Your task to perform on an android device: Do I have any events this weekend? Image 0: 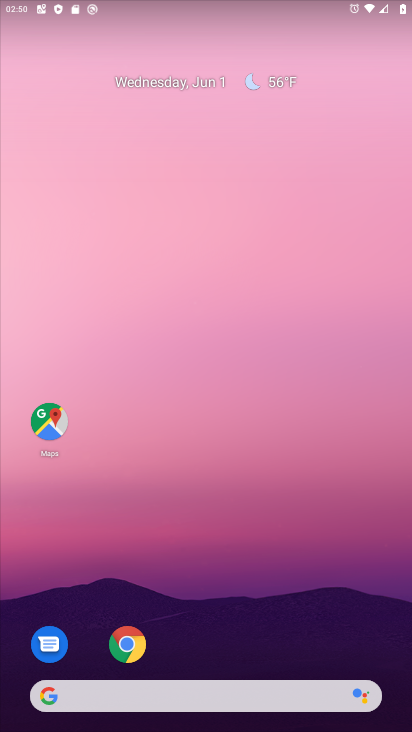
Step 0: drag from (177, 679) to (220, 234)
Your task to perform on an android device: Do I have any events this weekend? Image 1: 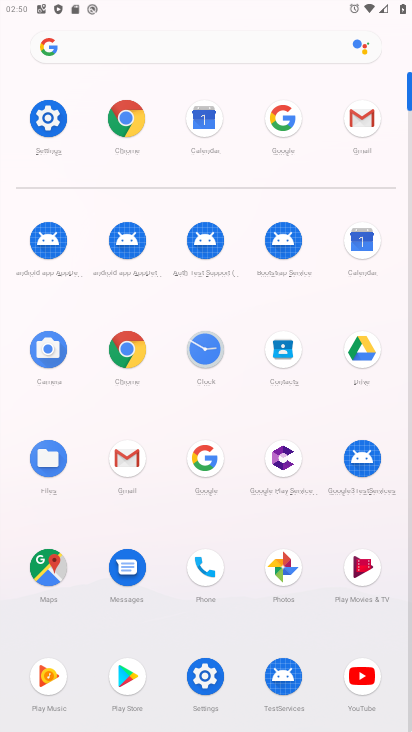
Step 1: click (366, 243)
Your task to perform on an android device: Do I have any events this weekend? Image 2: 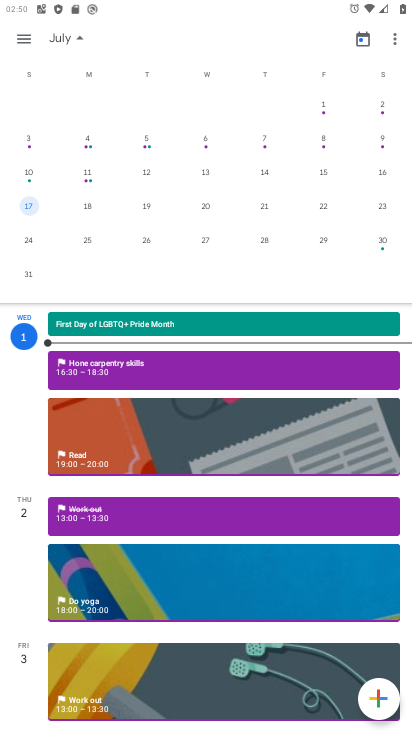
Step 2: drag from (44, 132) to (376, 237)
Your task to perform on an android device: Do I have any events this weekend? Image 3: 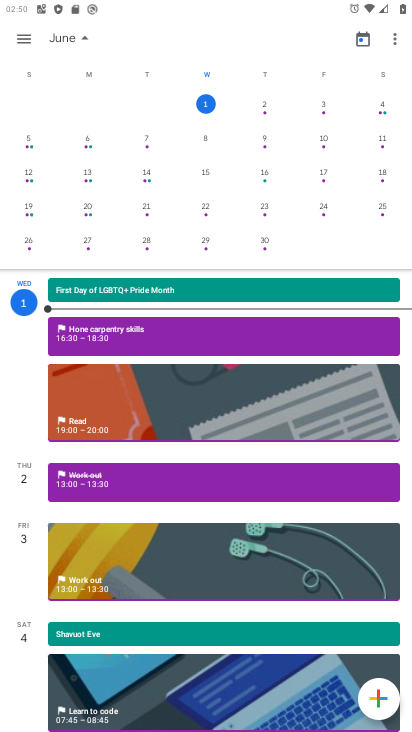
Step 3: click (32, 142)
Your task to perform on an android device: Do I have any events this weekend? Image 4: 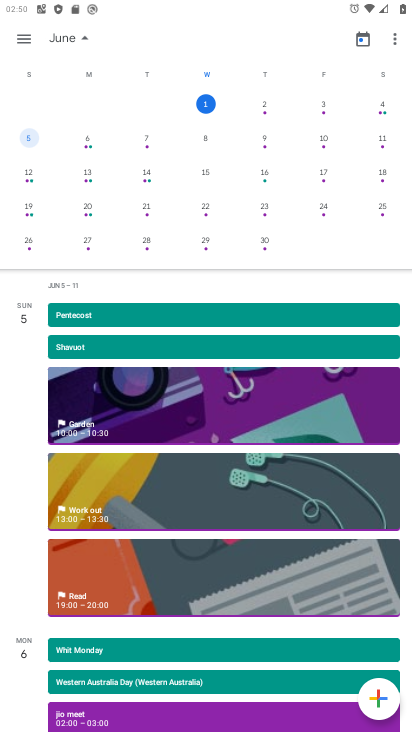
Step 4: click (382, 112)
Your task to perform on an android device: Do I have any events this weekend? Image 5: 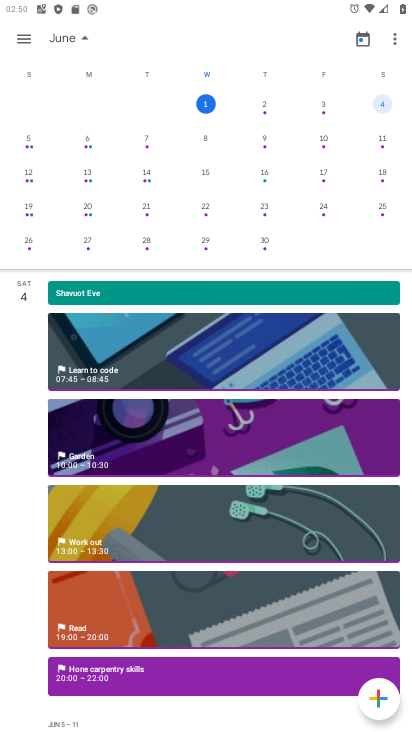
Step 5: click (155, 361)
Your task to perform on an android device: Do I have any events this weekend? Image 6: 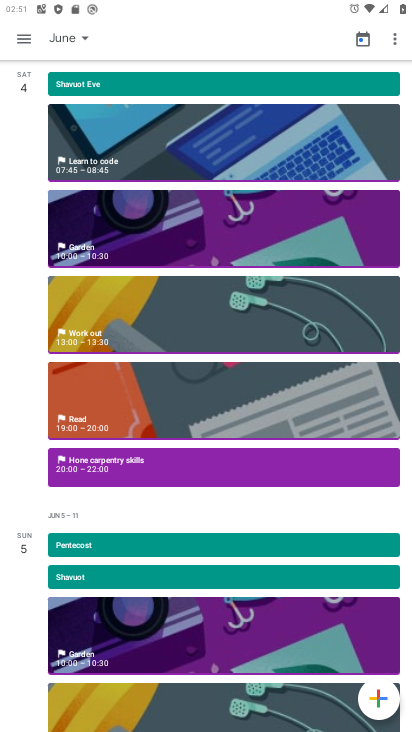
Step 6: task complete